Your task to perform on an android device: check data usage Image 0: 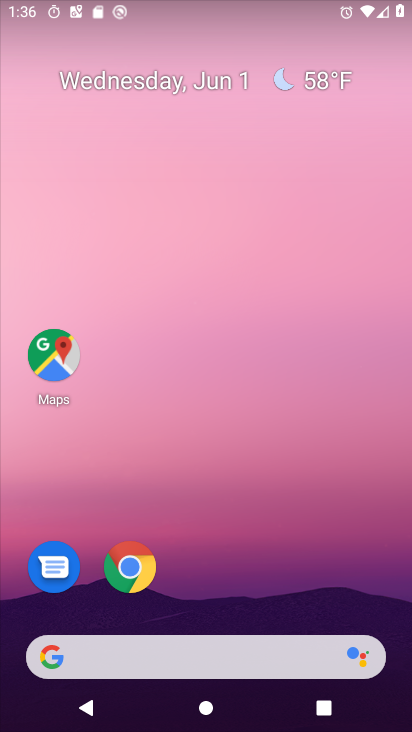
Step 0: drag from (208, 573) to (272, 108)
Your task to perform on an android device: check data usage Image 1: 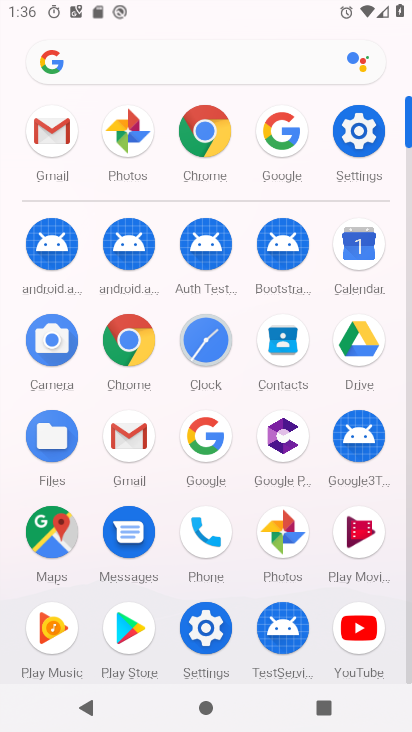
Step 1: click (357, 129)
Your task to perform on an android device: check data usage Image 2: 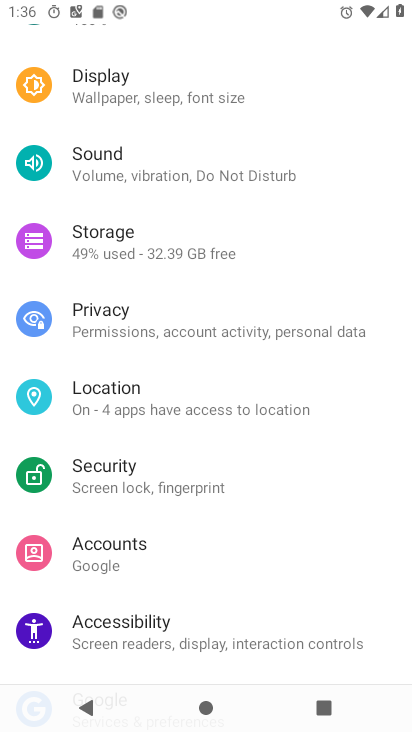
Step 2: drag from (181, 104) to (156, 574)
Your task to perform on an android device: check data usage Image 3: 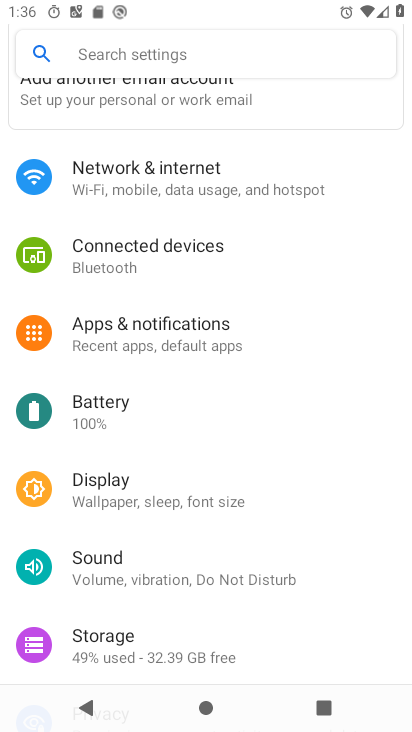
Step 3: click (162, 194)
Your task to perform on an android device: check data usage Image 4: 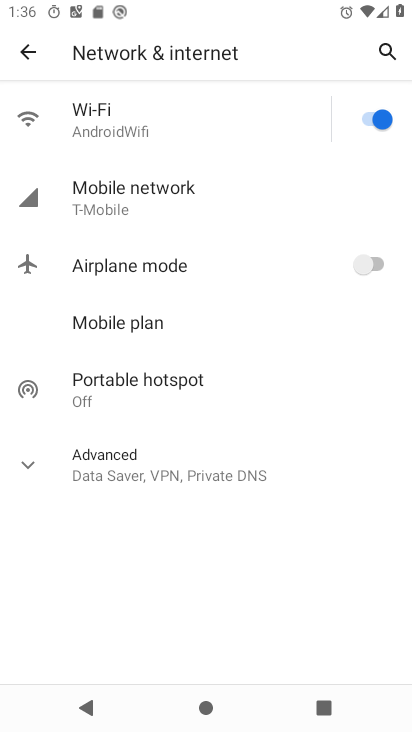
Step 4: click (131, 201)
Your task to perform on an android device: check data usage Image 5: 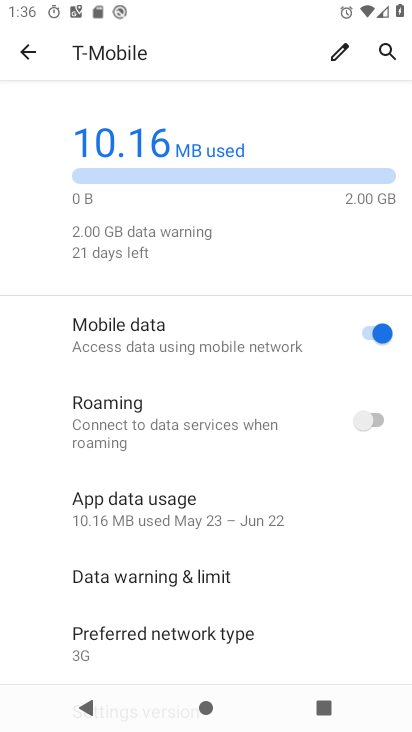
Step 5: task complete